Your task to perform on an android device: turn notification dots off Image 0: 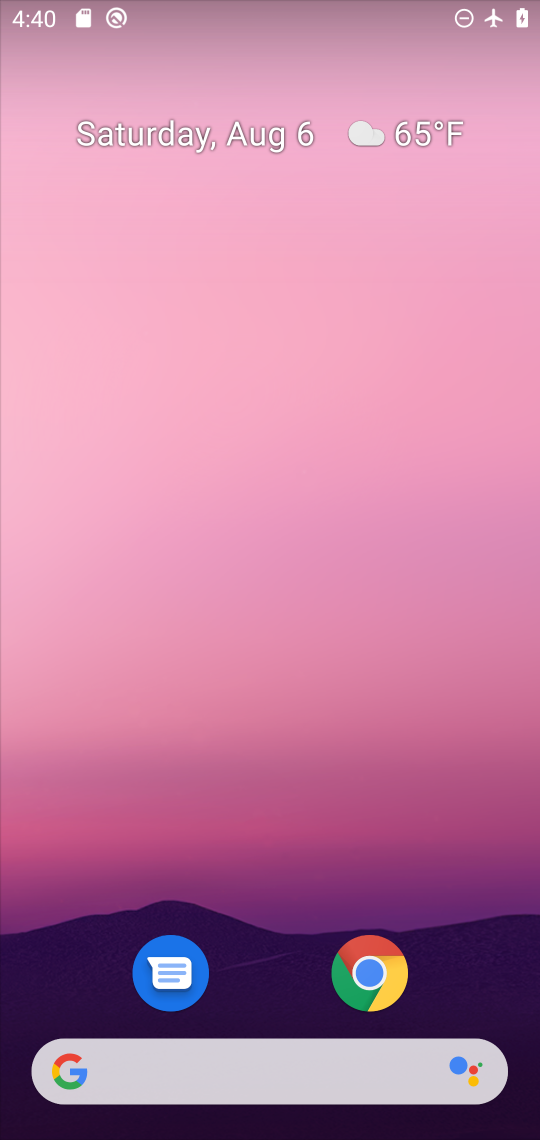
Step 0: drag from (249, 947) to (329, 72)
Your task to perform on an android device: turn notification dots off Image 1: 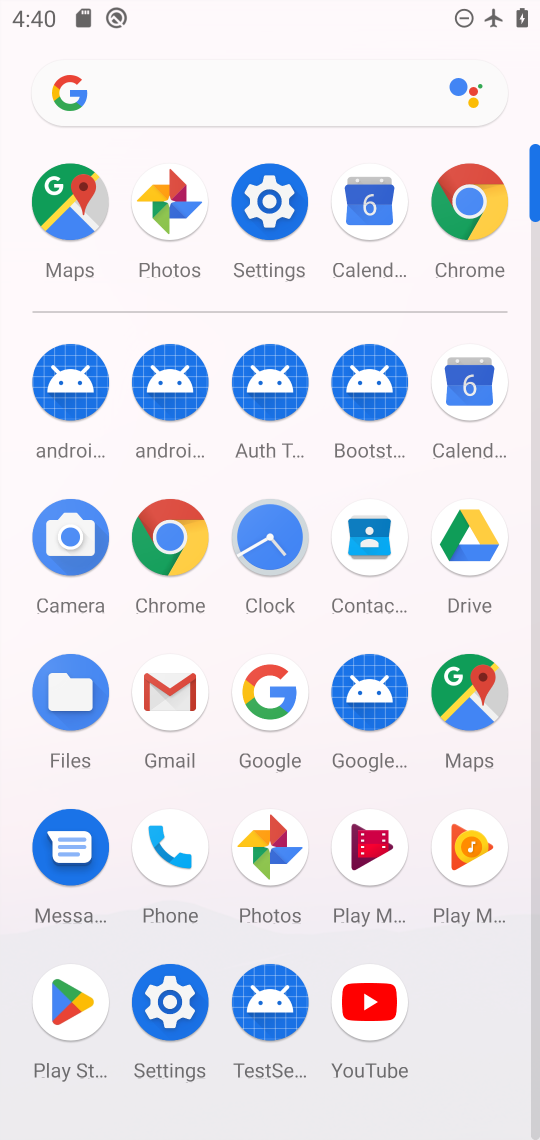
Step 1: click (175, 991)
Your task to perform on an android device: turn notification dots off Image 2: 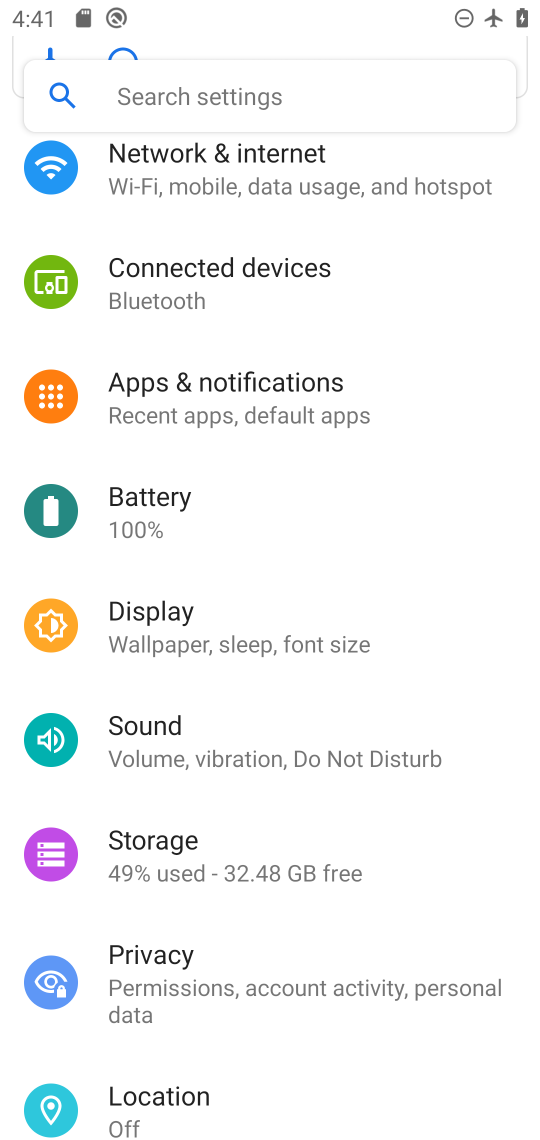
Step 2: click (291, 390)
Your task to perform on an android device: turn notification dots off Image 3: 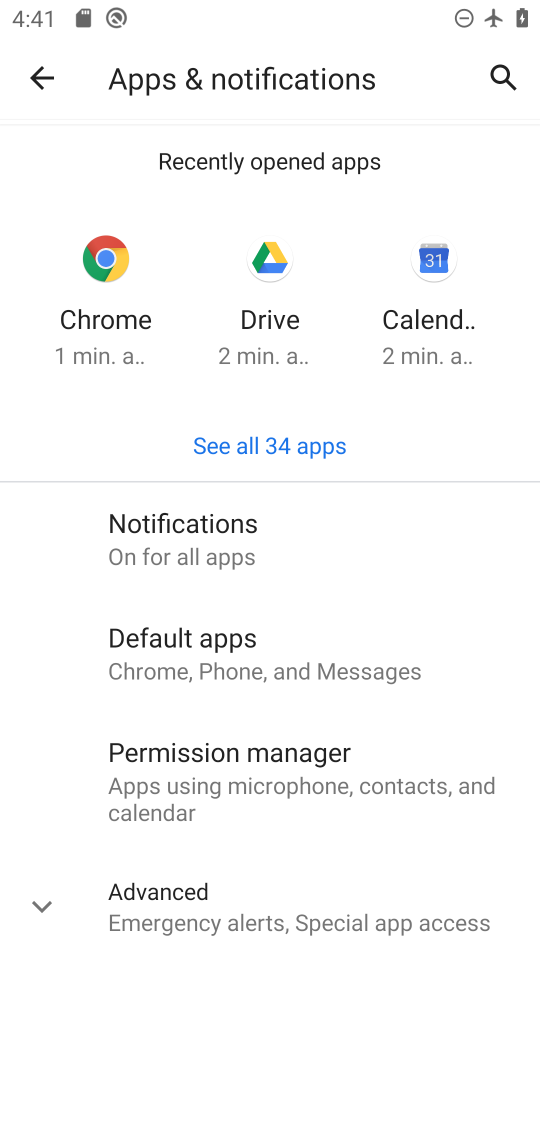
Step 3: click (196, 543)
Your task to perform on an android device: turn notification dots off Image 4: 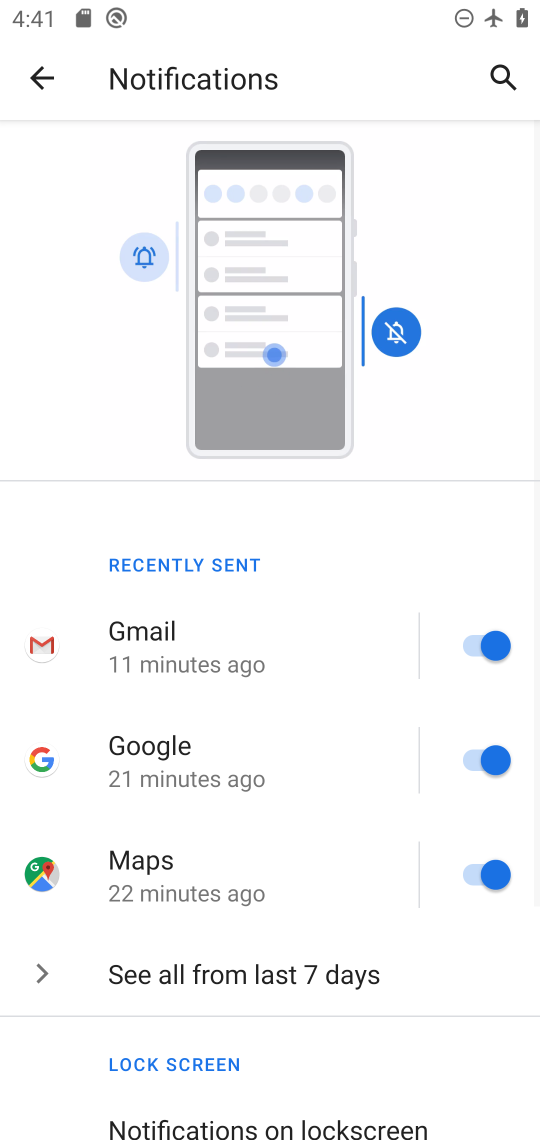
Step 4: drag from (269, 920) to (398, 337)
Your task to perform on an android device: turn notification dots off Image 5: 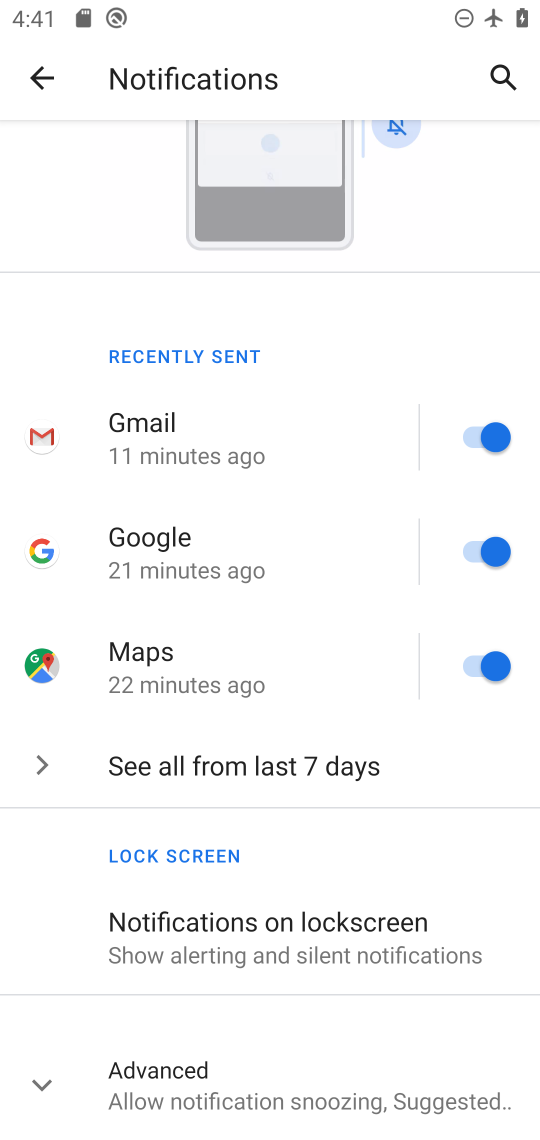
Step 5: click (217, 1031)
Your task to perform on an android device: turn notification dots off Image 6: 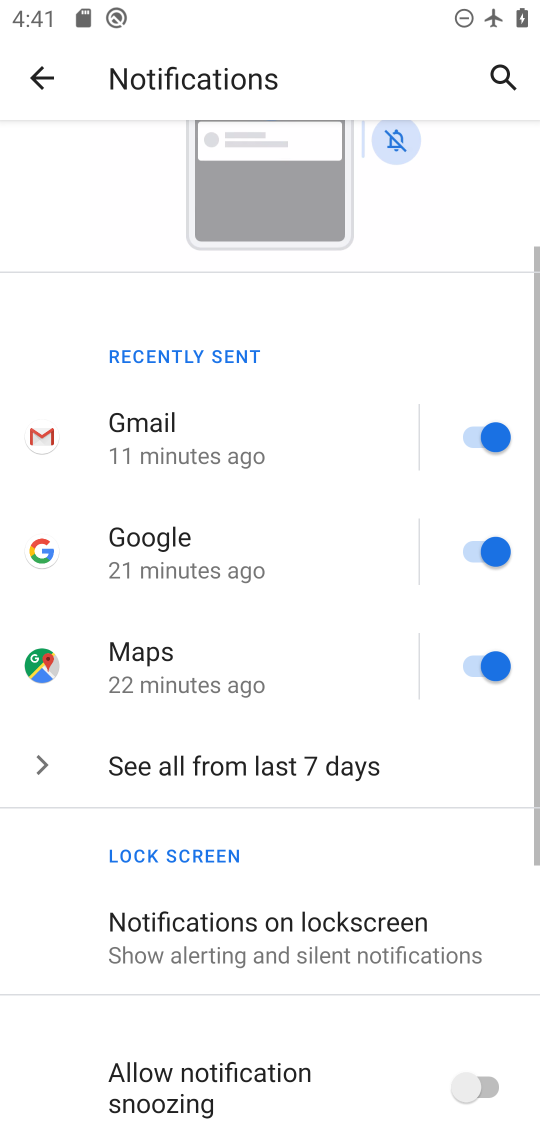
Step 6: drag from (226, 862) to (298, 365)
Your task to perform on an android device: turn notification dots off Image 7: 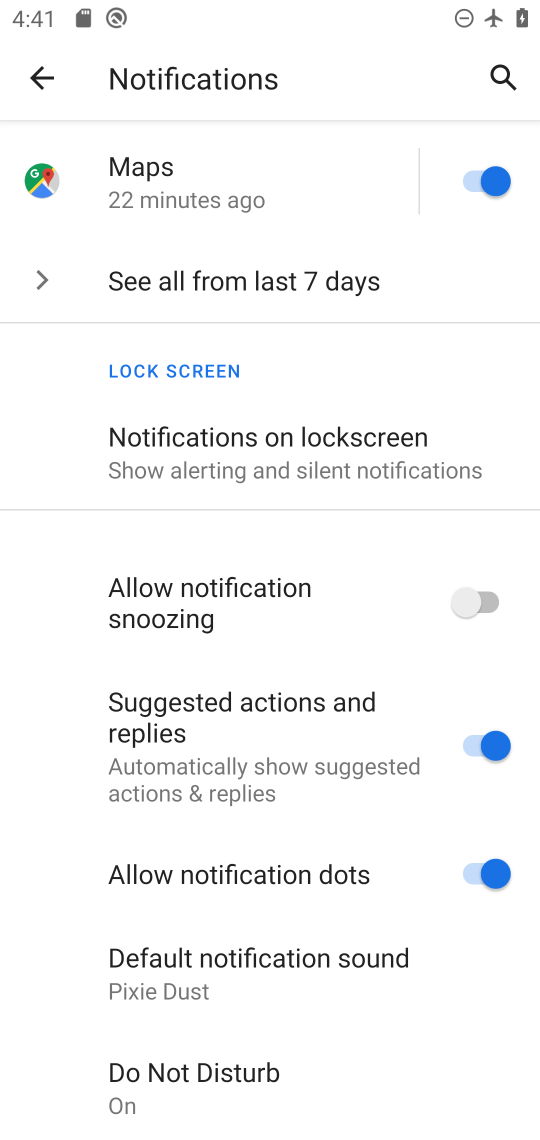
Step 7: click (496, 872)
Your task to perform on an android device: turn notification dots off Image 8: 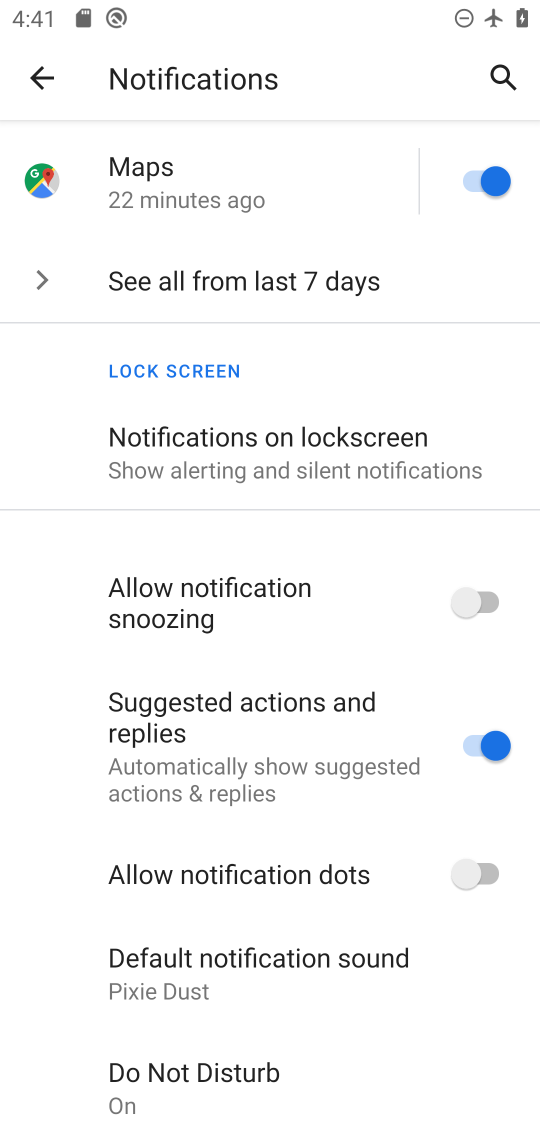
Step 8: task complete